Your task to perform on an android device: toggle wifi Image 0: 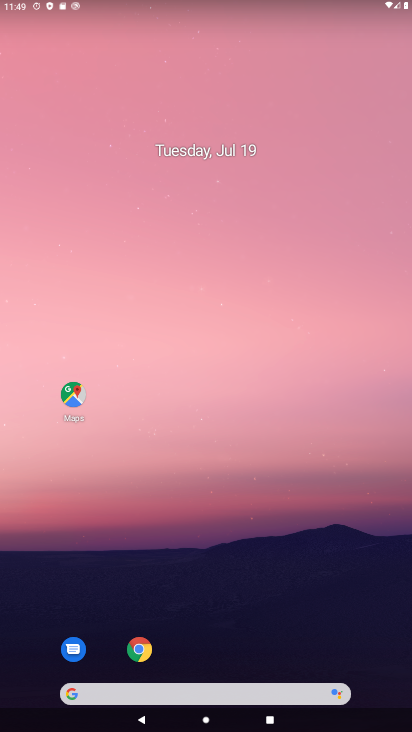
Step 0: drag from (224, 727) to (224, 219)
Your task to perform on an android device: toggle wifi Image 1: 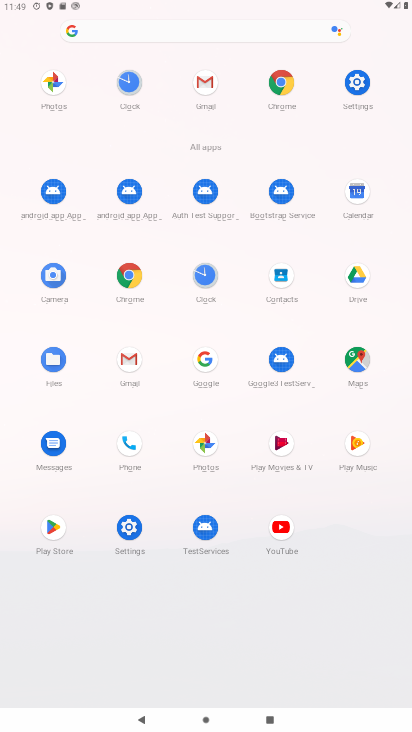
Step 1: click (359, 79)
Your task to perform on an android device: toggle wifi Image 2: 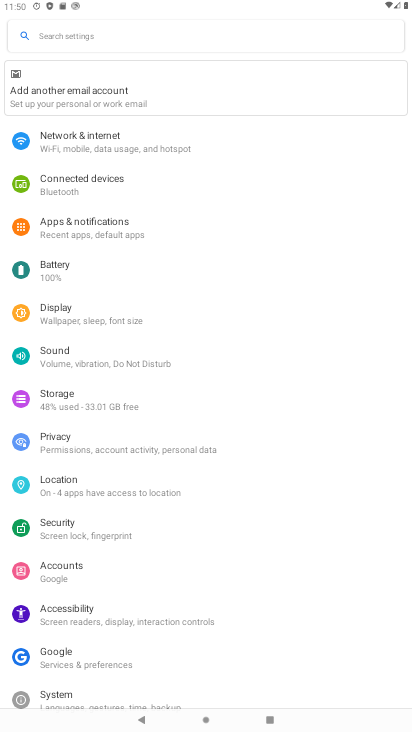
Step 2: click (78, 145)
Your task to perform on an android device: toggle wifi Image 3: 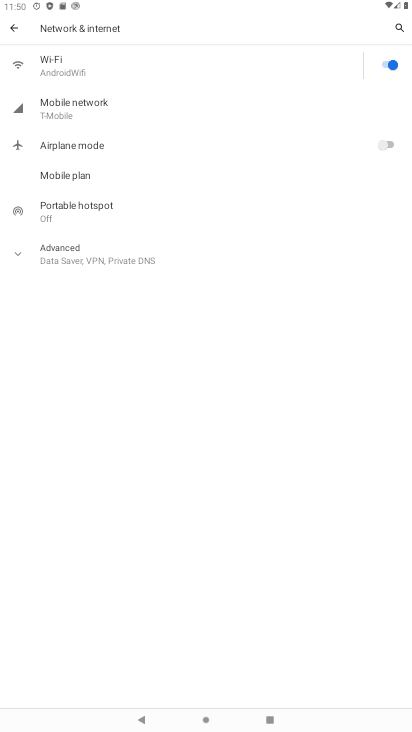
Step 3: click (386, 65)
Your task to perform on an android device: toggle wifi Image 4: 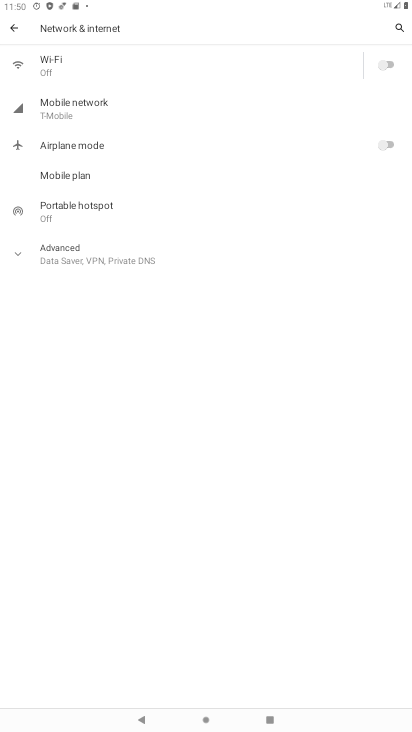
Step 4: task complete